Your task to perform on an android device: open sync settings in chrome Image 0: 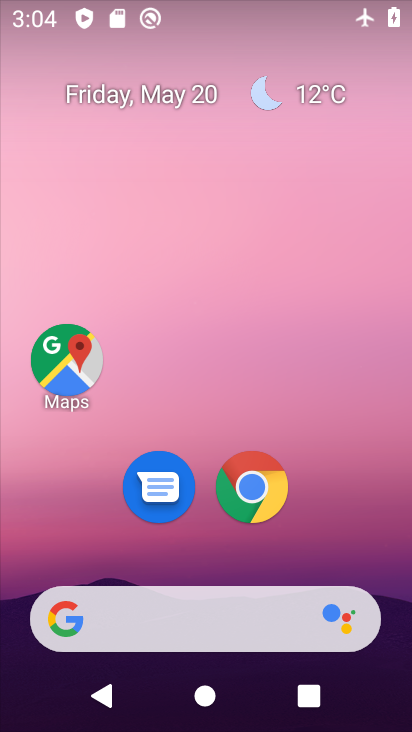
Step 0: drag from (240, 370) to (236, 334)
Your task to perform on an android device: open sync settings in chrome Image 1: 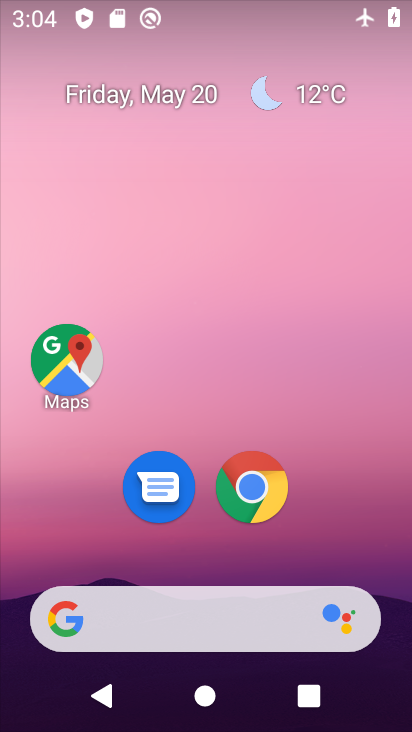
Step 1: drag from (317, 517) to (254, 66)
Your task to perform on an android device: open sync settings in chrome Image 2: 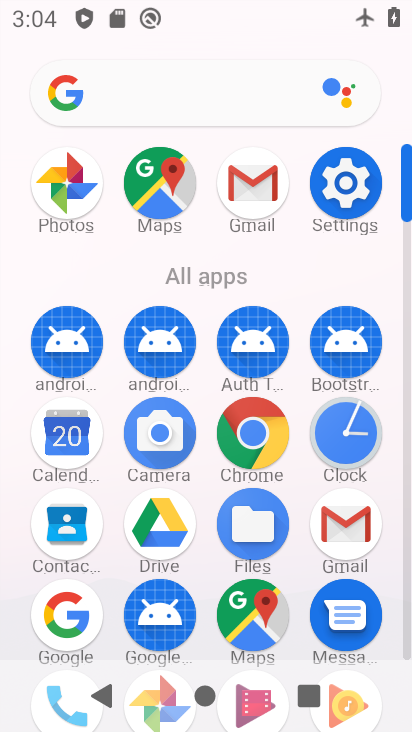
Step 2: click (257, 453)
Your task to perform on an android device: open sync settings in chrome Image 3: 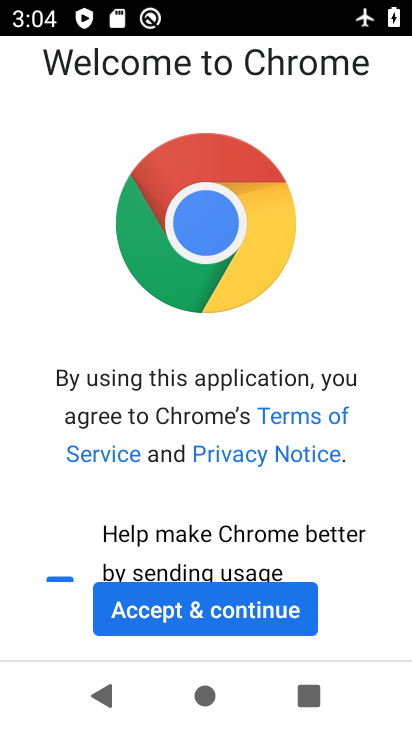
Step 3: click (220, 608)
Your task to perform on an android device: open sync settings in chrome Image 4: 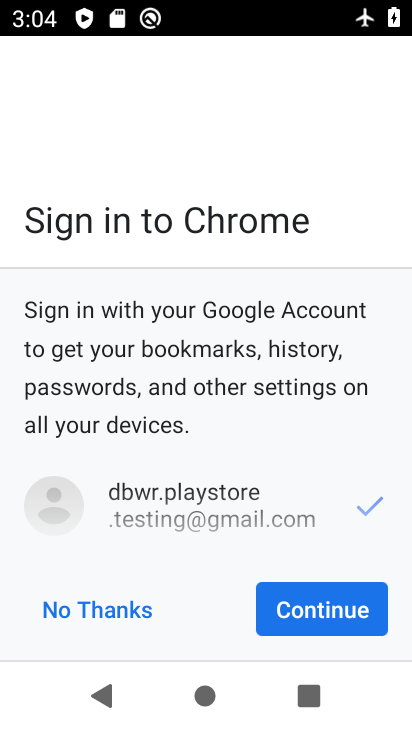
Step 4: click (340, 588)
Your task to perform on an android device: open sync settings in chrome Image 5: 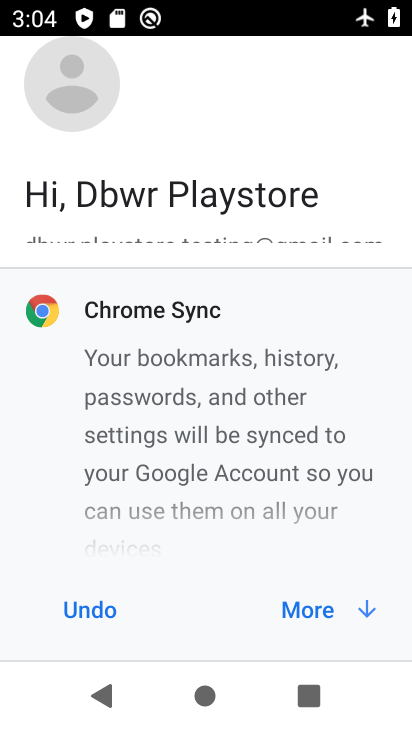
Step 5: click (318, 610)
Your task to perform on an android device: open sync settings in chrome Image 6: 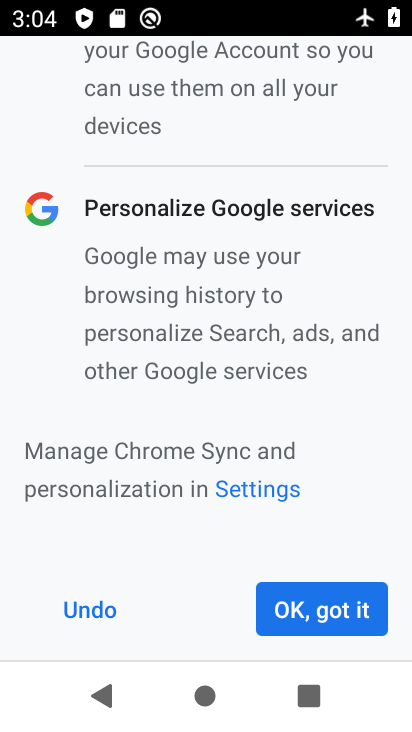
Step 6: click (324, 611)
Your task to perform on an android device: open sync settings in chrome Image 7: 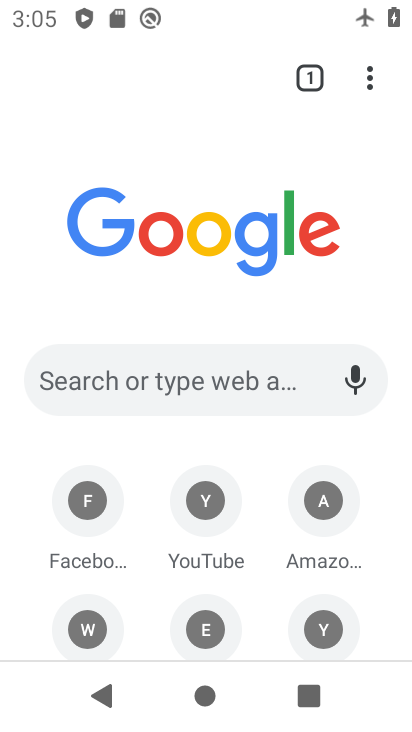
Step 7: click (364, 86)
Your task to perform on an android device: open sync settings in chrome Image 8: 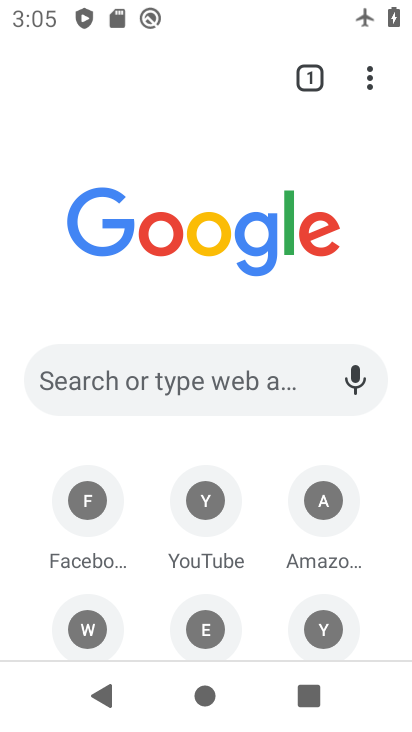
Step 8: click (377, 78)
Your task to perform on an android device: open sync settings in chrome Image 9: 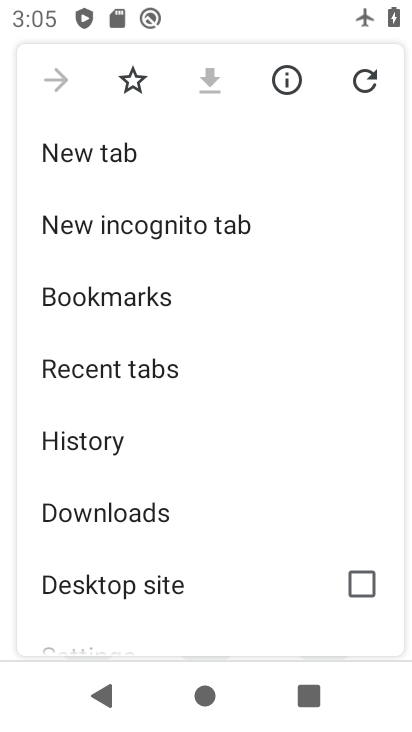
Step 9: drag from (150, 552) to (148, 308)
Your task to perform on an android device: open sync settings in chrome Image 10: 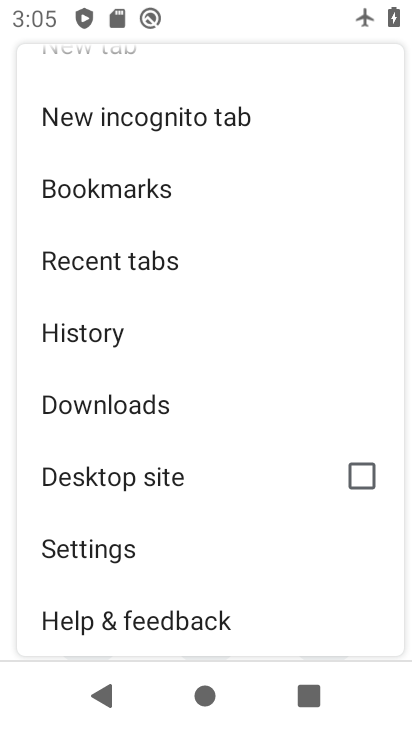
Step 10: click (121, 554)
Your task to perform on an android device: open sync settings in chrome Image 11: 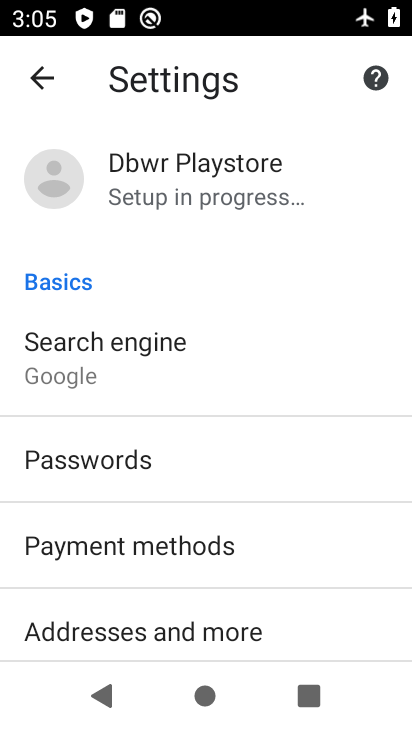
Step 11: click (186, 198)
Your task to perform on an android device: open sync settings in chrome Image 12: 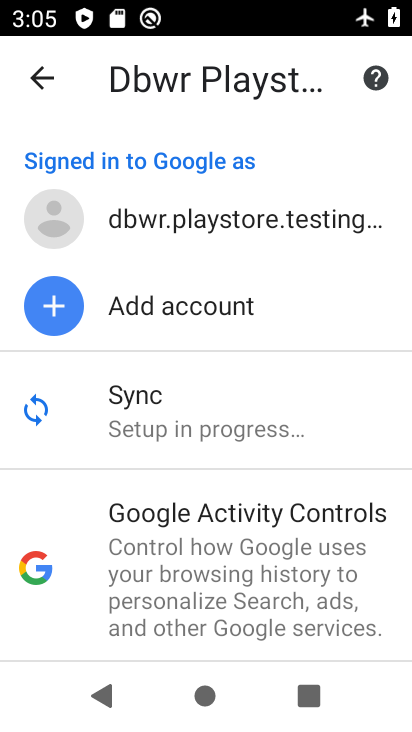
Step 12: click (128, 426)
Your task to perform on an android device: open sync settings in chrome Image 13: 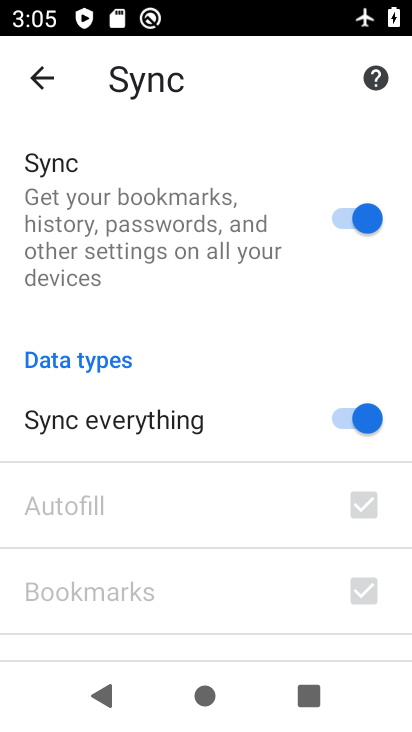
Step 13: click (191, 214)
Your task to perform on an android device: open sync settings in chrome Image 14: 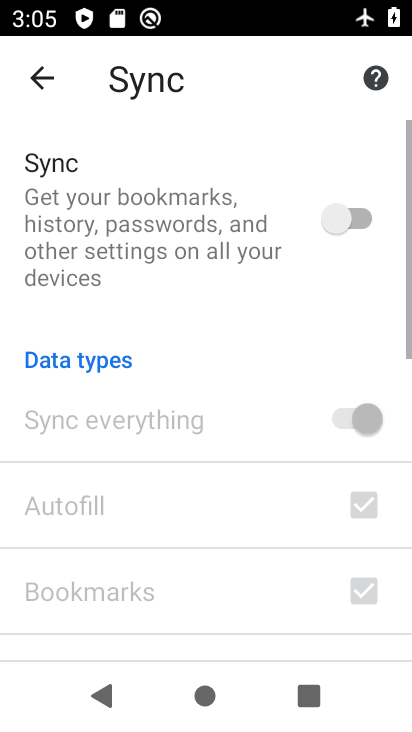
Step 14: task complete